Your task to perform on an android device: open app "Instagram" (install if not already installed) Image 0: 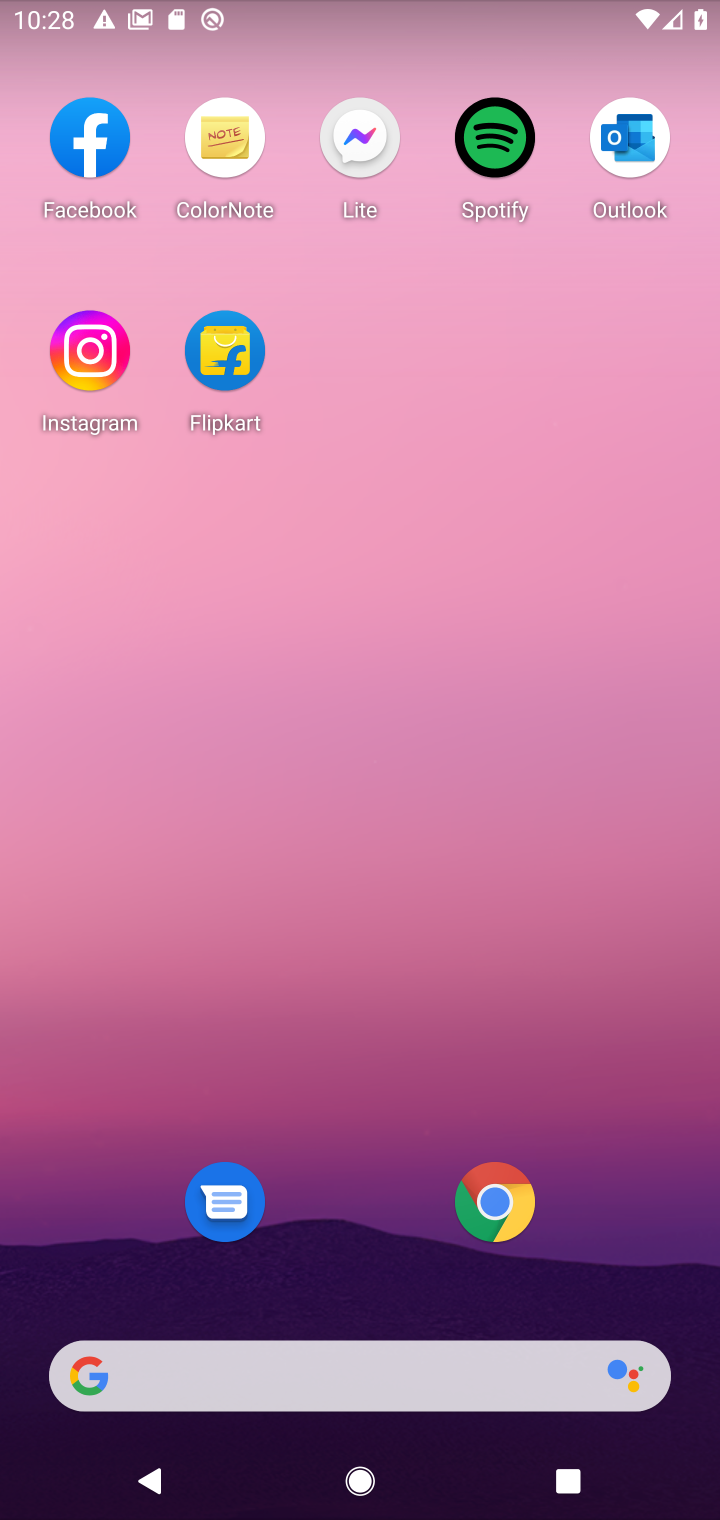
Step 0: drag from (469, 1075) to (83, 2)
Your task to perform on an android device: open app "Instagram" (install if not already installed) Image 1: 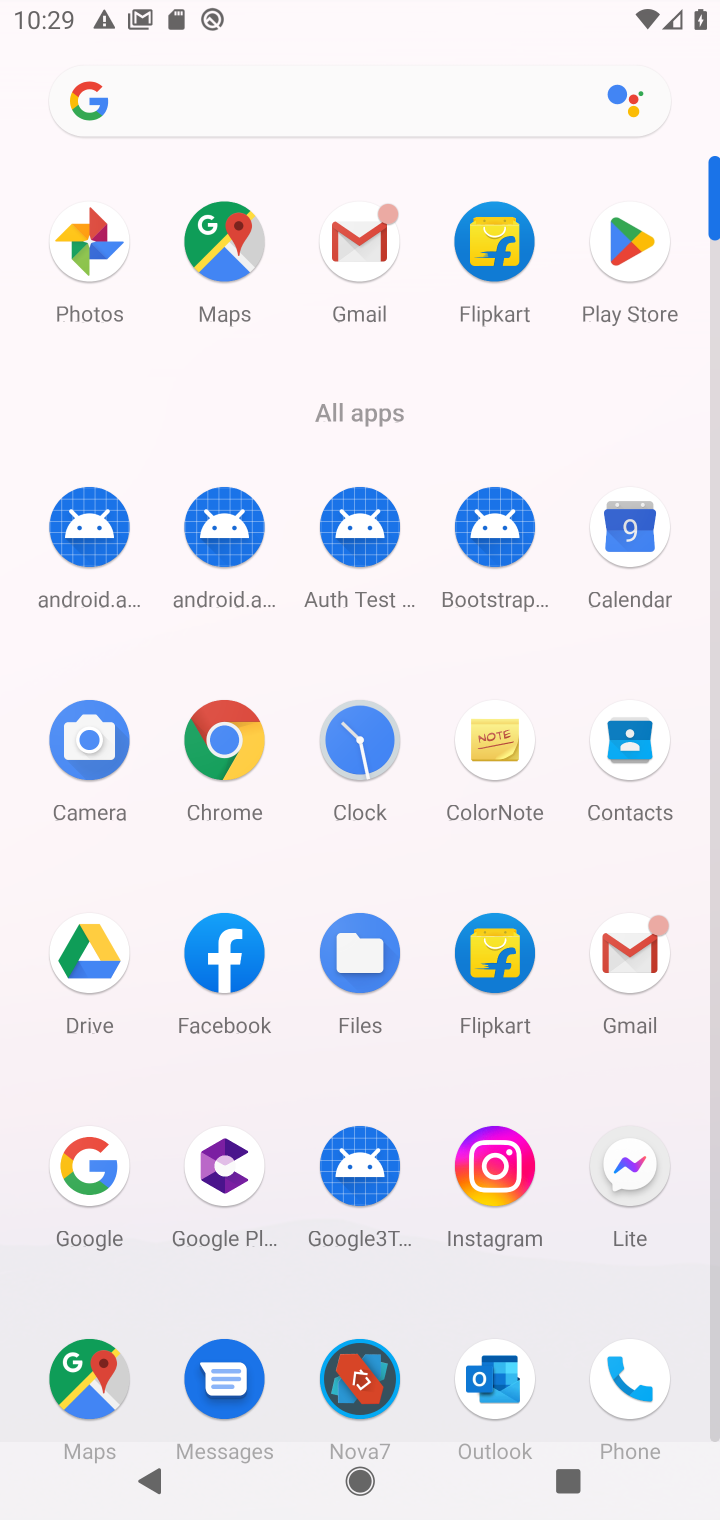
Step 1: click (616, 245)
Your task to perform on an android device: open app "Instagram" (install if not already installed) Image 2: 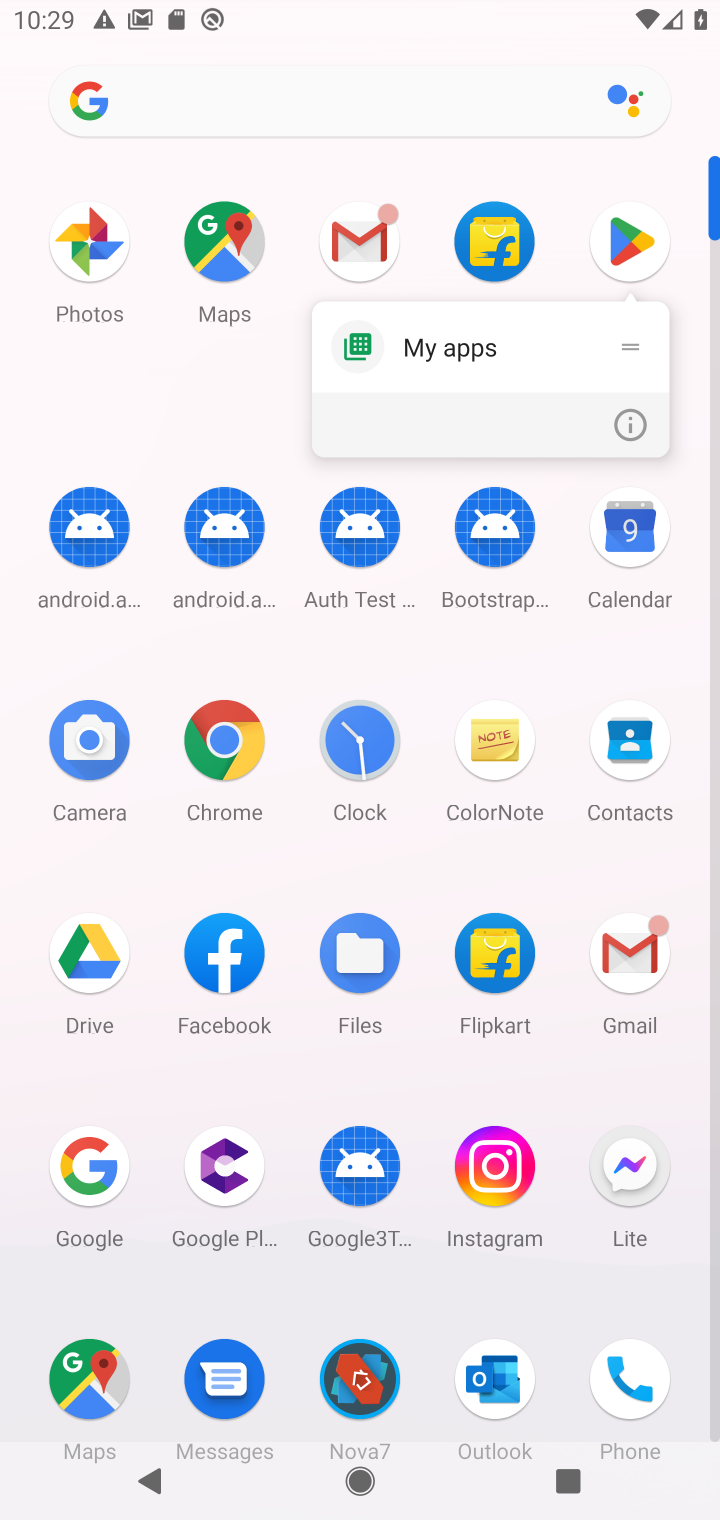
Step 2: click (487, 1210)
Your task to perform on an android device: open app "Instagram" (install if not already installed) Image 3: 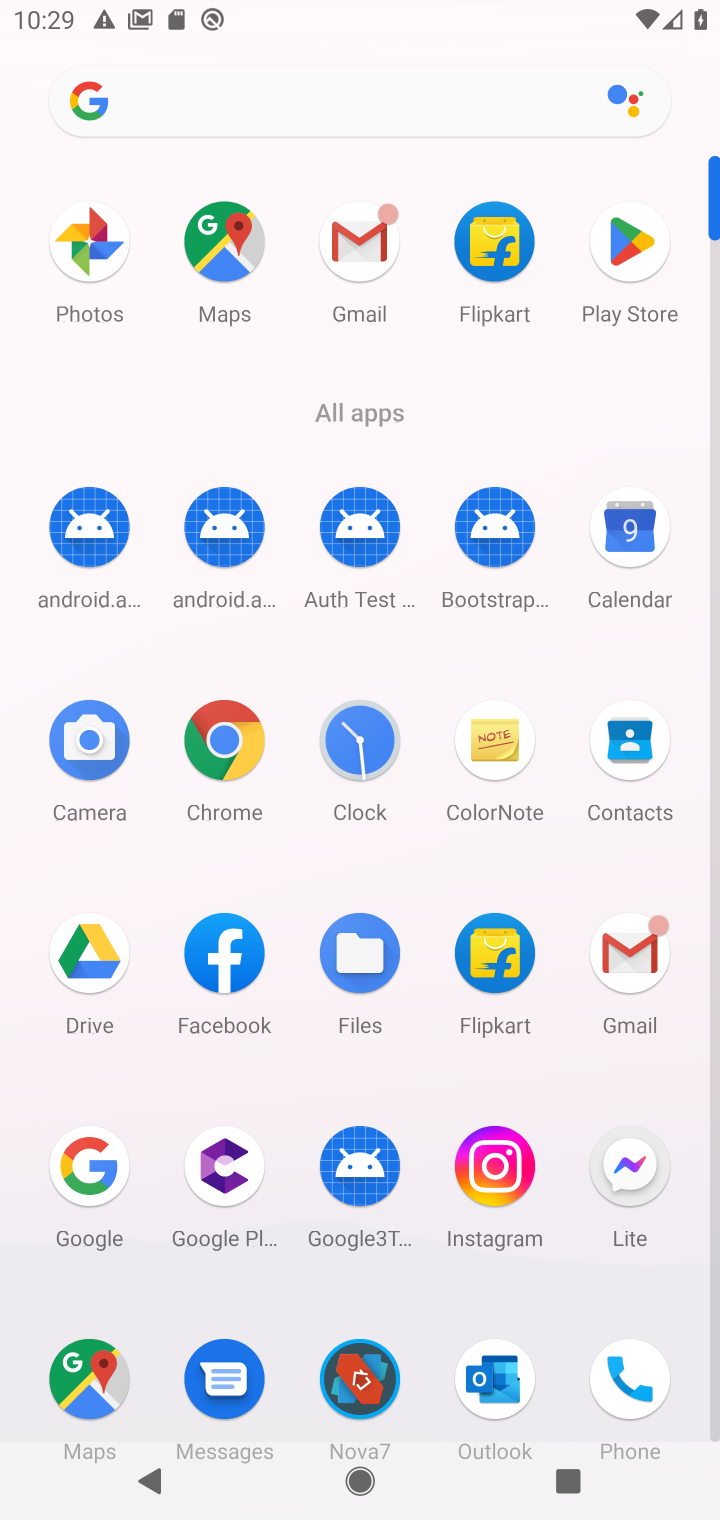
Step 3: click (495, 1165)
Your task to perform on an android device: open app "Instagram" (install if not already installed) Image 4: 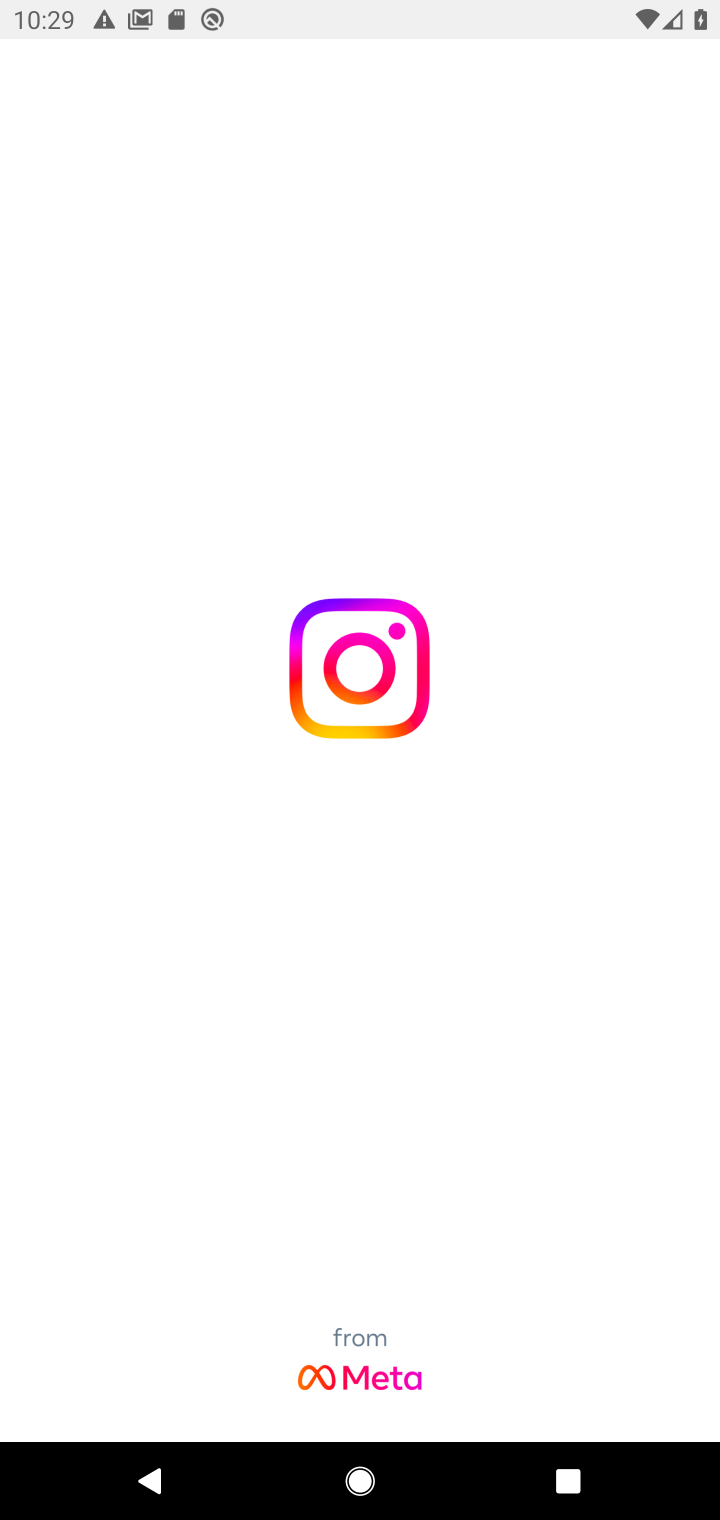
Step 4: task complete